Your task to perform on an android device: change alarm snooze length Image 0: 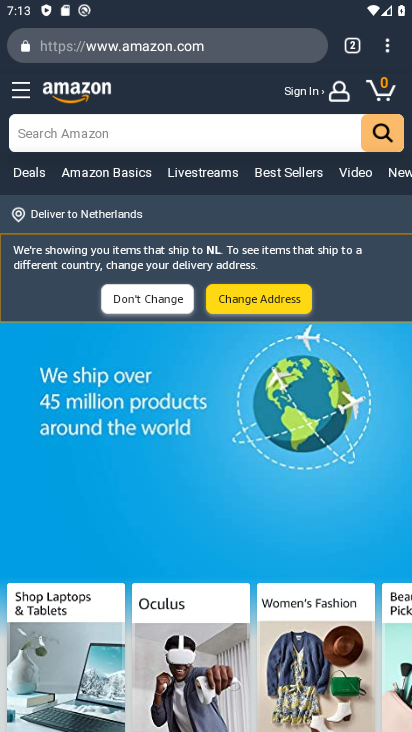
Step 0: press home button
Your task to perform on an android device: change alarm snooze length Image 1: 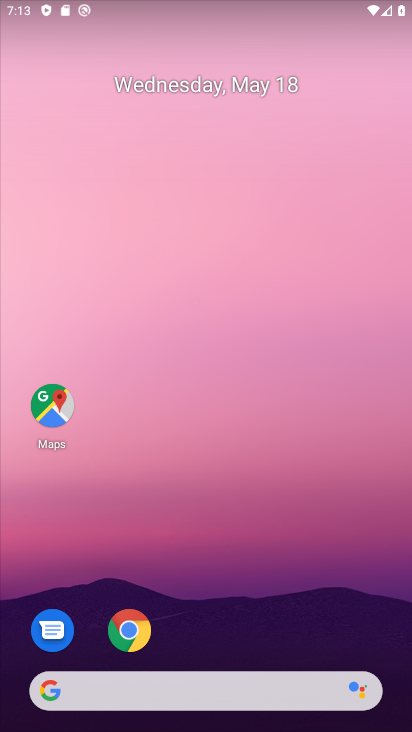
Step 1: drag from (245, 566) to (109, 46)
Your task to perform on an android device: change alarm snooze length Image 2: 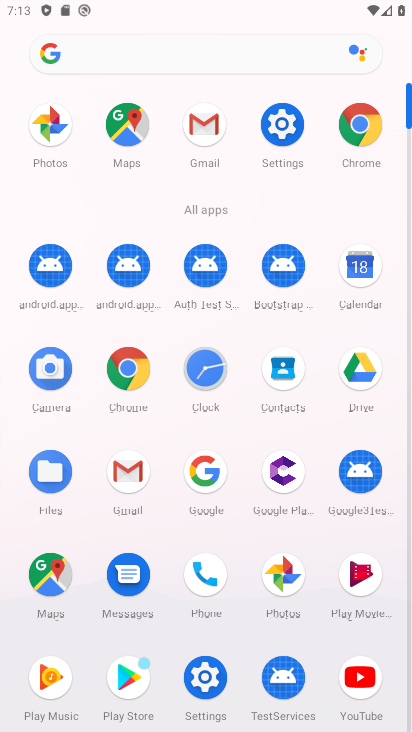
Step 2: click (204, 373)
Your task to perform on an android device: change alarm snooze length Image 3: 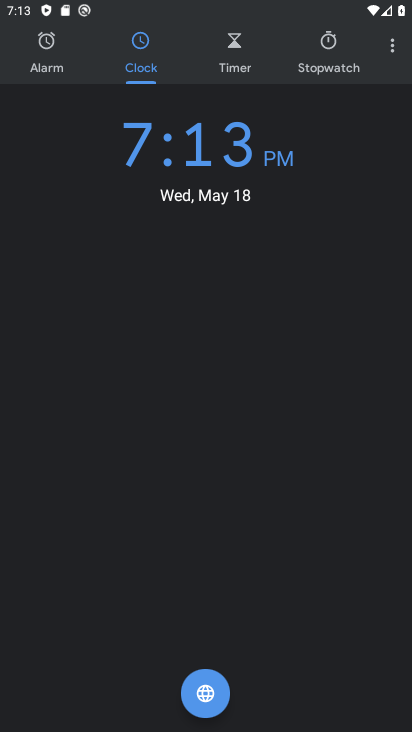
Step 3: click (399, 54)
Your task to perform on an android device: change alarm snooze length Image 4: 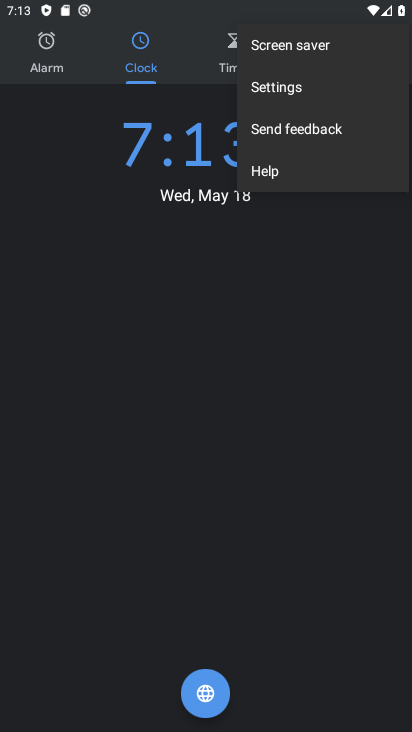
Step 4: click (289, 90)
Your task to perform on an android device: change alarm snooze length Image 5: 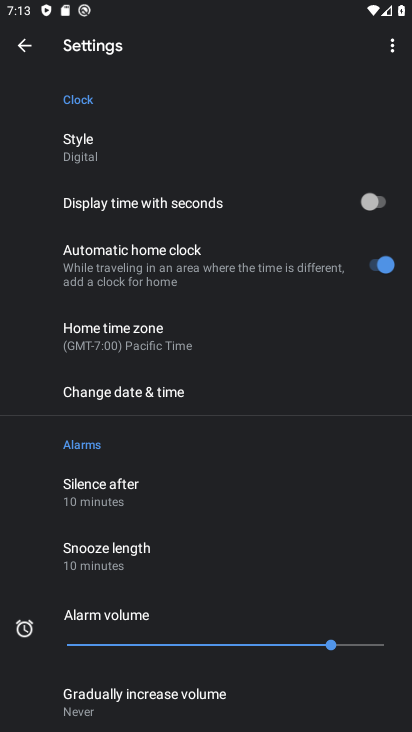
Step 5: click (132, 552)
Your task to perform on an android device: change alarm snooze length Image 6: 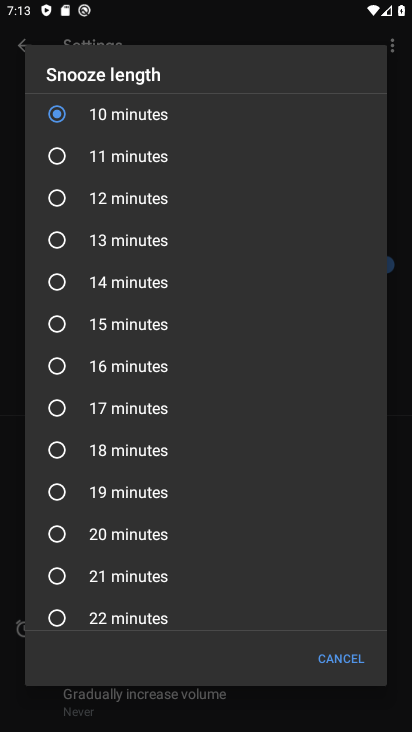
Step 6: click (61, 203)
Your task to perform on an android device: change alarm snooze length Image 7: 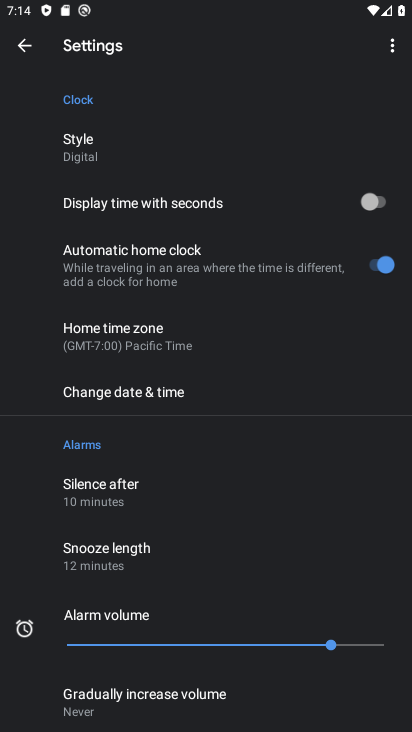
Step 7: task complete